Your task to perform on an android device: Open accessibility settings Image 0: 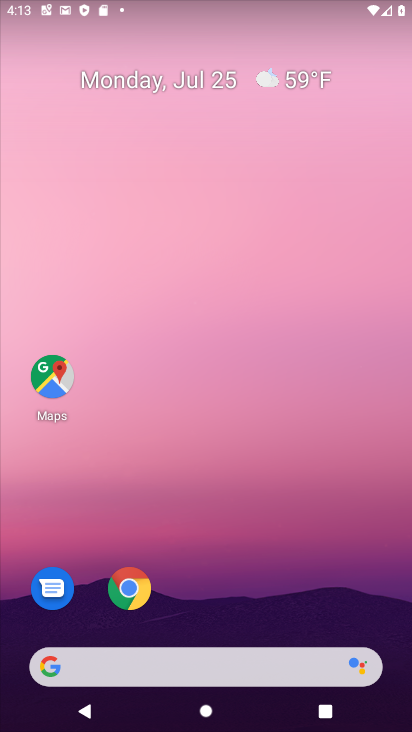
Step 0: drag from (266, 566) to (297, 31)
Your task to perform on an android device: Open accessibility settings Image 1: 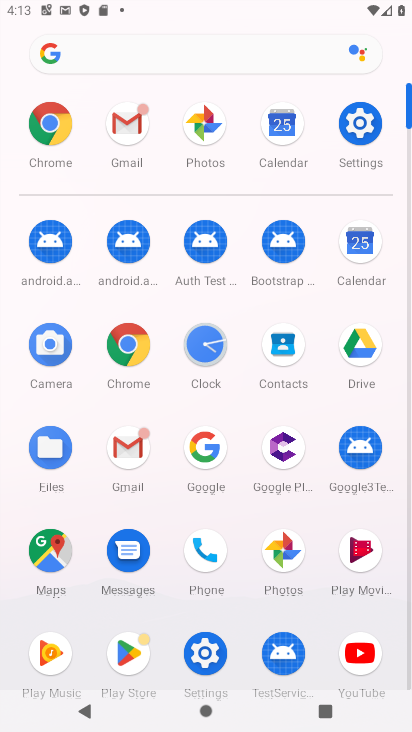
Step 1: click (211, 654)
Your task to perform on an android device: Open accessibility settings Image 2: 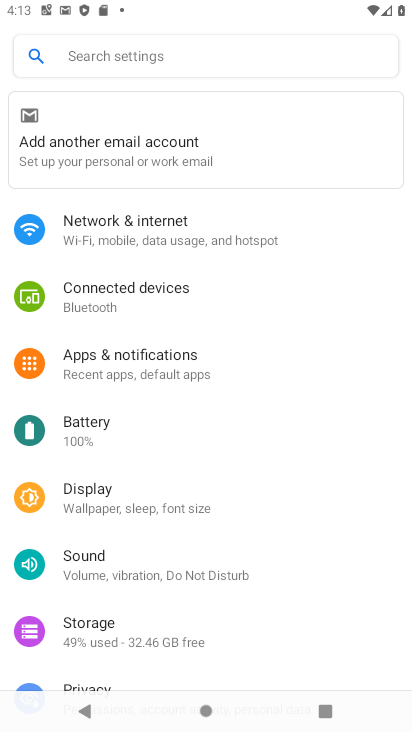
Step 2: drag from (296, 498) to (255, 74)
Your task to perform on an android device: Open accessibility settings Image 3: 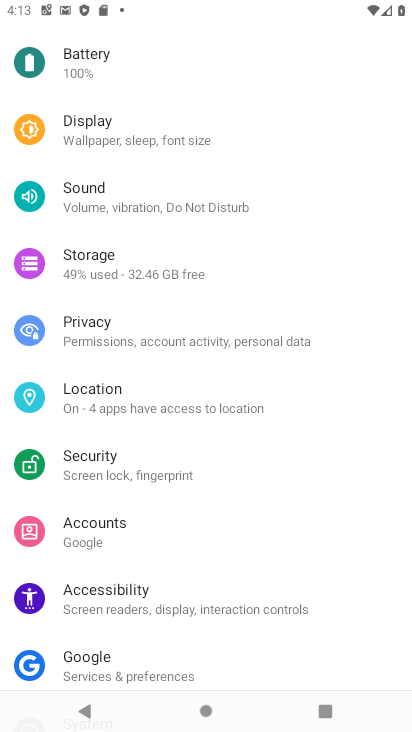
Step 3: click (133, 589)
Your task to perform on an android device: Open accessibility settings Image 4: 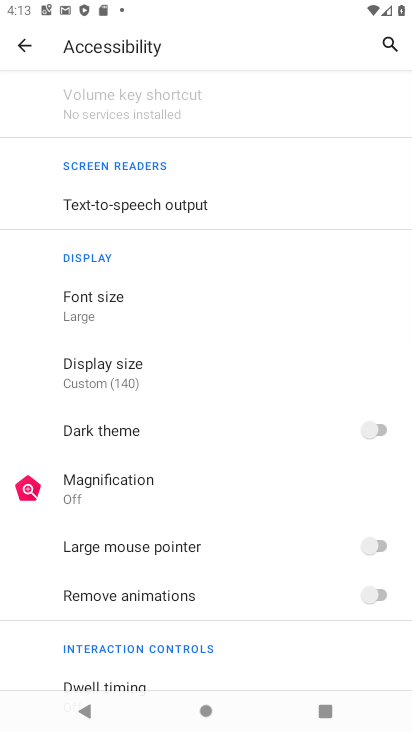
Step 4: task complete